Your task to perform on an android device: Do I have any events this weekend? Image 0: 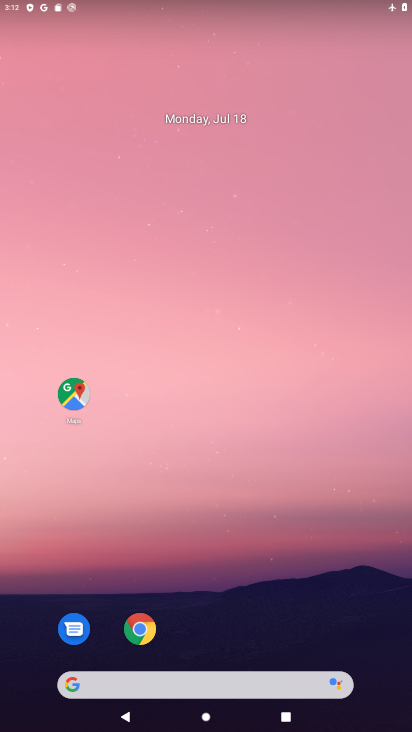
Step 0: drag from (208, 653) to (177, 60)
Your task to perform on an android device: Do I have any events this weekend? Image 1: 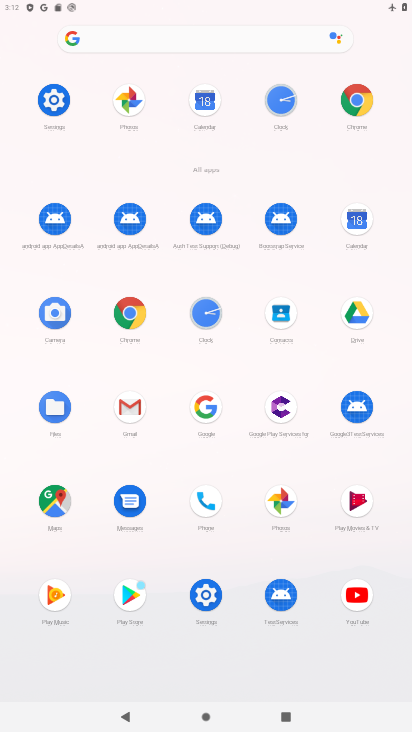
Step 1: click (357, 235)
Your task to perform on an android device: Do I have any events this weekend? Image 2: 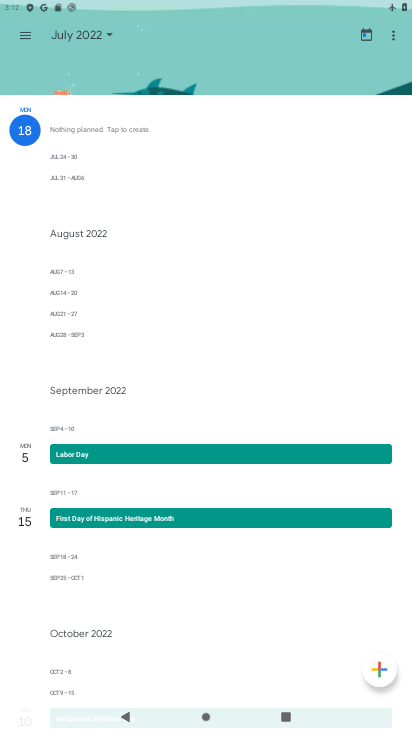
Step 2: click (22, 32)
Your task to perform on an android device: Do I have any events this weekend? Image 3: 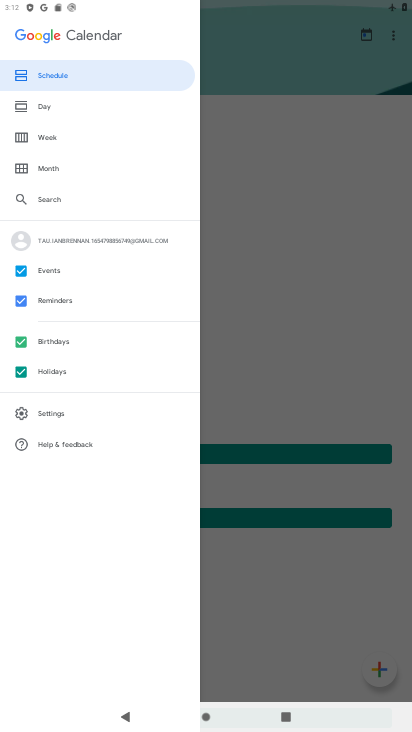
Step 3: click (43, 127)
Your task to perform on an android device: Do I have any events this weekend? Image 4: 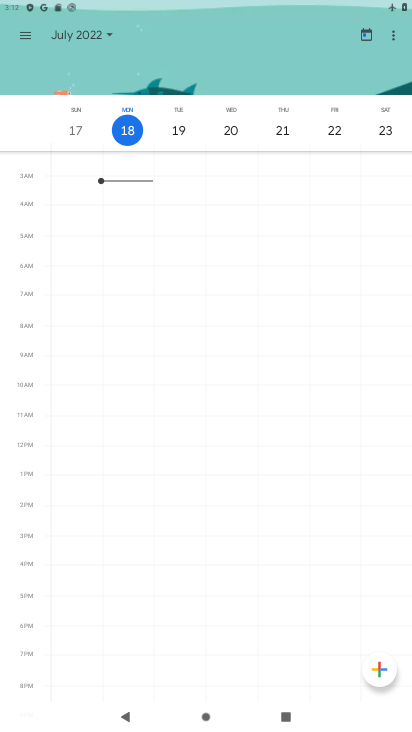
Step 4: task complete